Your task to perform on an android device: add a contact in the contacts app Image 0: 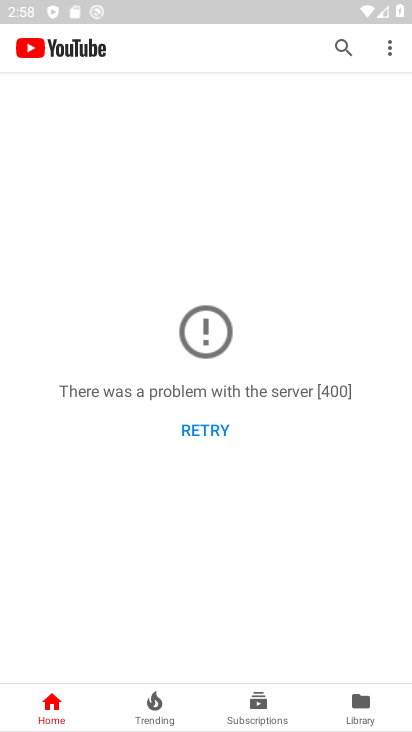
Step 0: press home button
Your task to perform on an android device: add a contact in the contacts app Image 1: 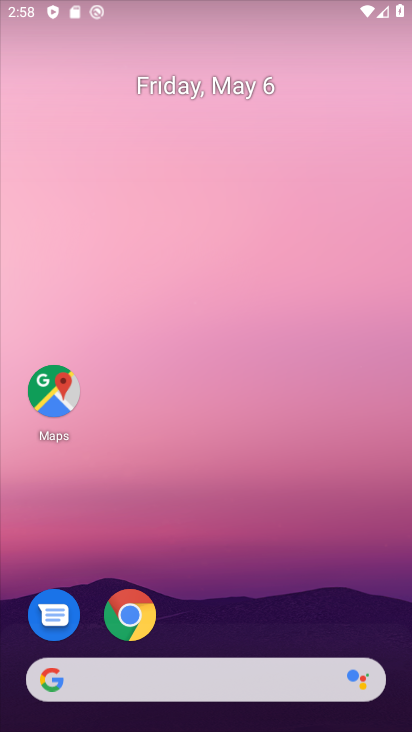
Step 1: drag from (305, 602) to (283, 6)
Your task to perform on an android device: add a contact in the contacts app Image 2: 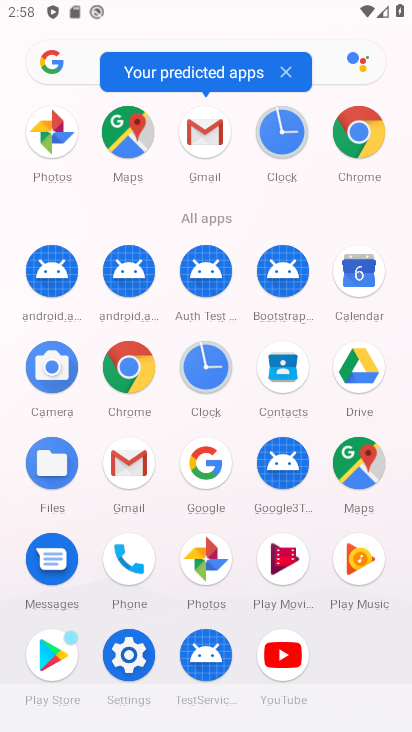
Step 2: click (287, 375)
Your task to perform on an android device: add a contact in the contacts app Image 3: 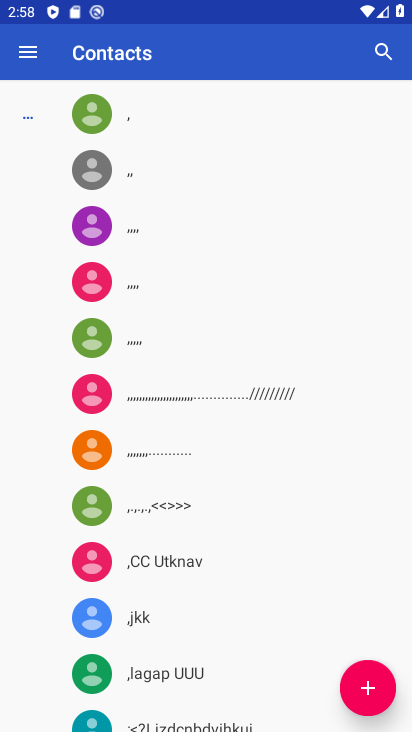
Step 3: click (367, 689)
Your task to perform on an android device: add a contact in the contacts app Image 4: 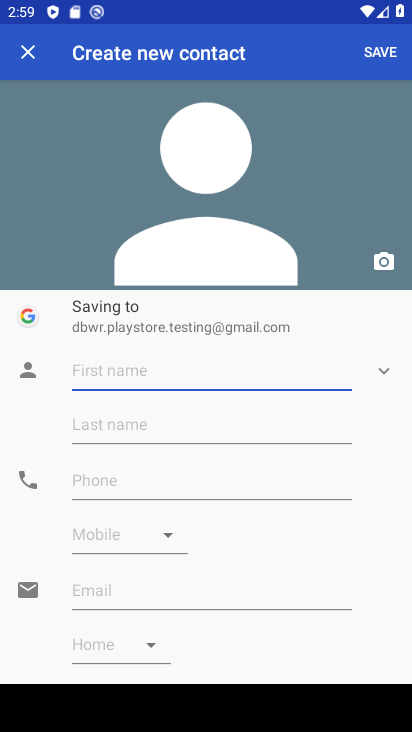
Step 4: click (137, 374)
Your task to perform on an android device: add a contact in the contacts app Image 5: 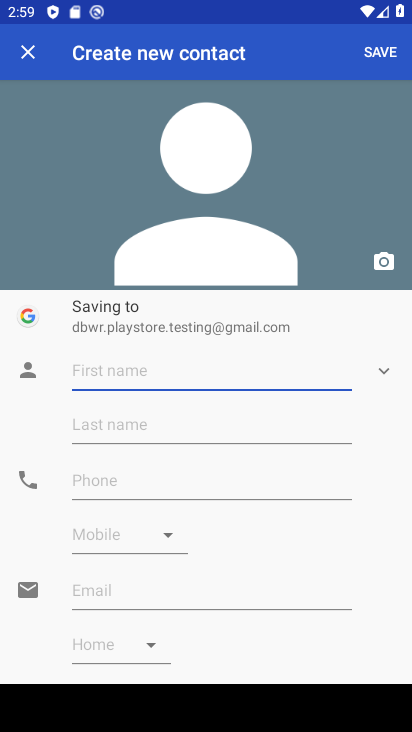
Step 5: type "ankit"
Your task to perform on an android device: add a contact in the contacts app Image 6: 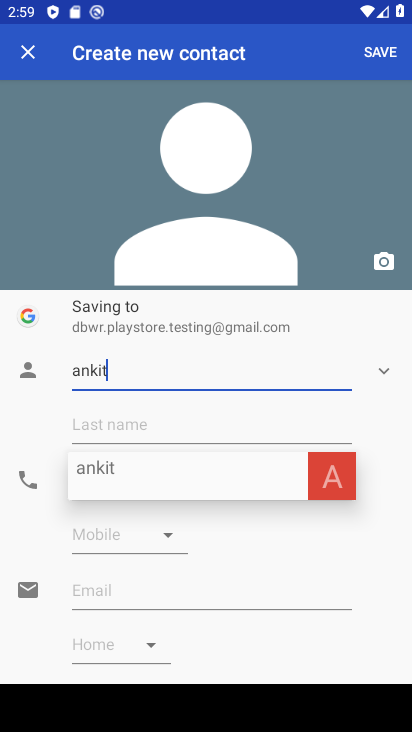
Step 6: click (388, 481)
Your task to perform on an android device: add a contact in the contacts app Image 7: 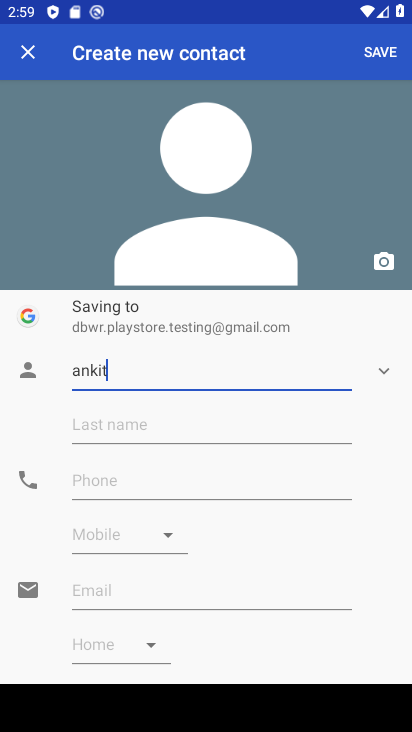
Step 7: click (101, 479)
Your task to perform on an android device: add a contact in the contacts app Image 8: 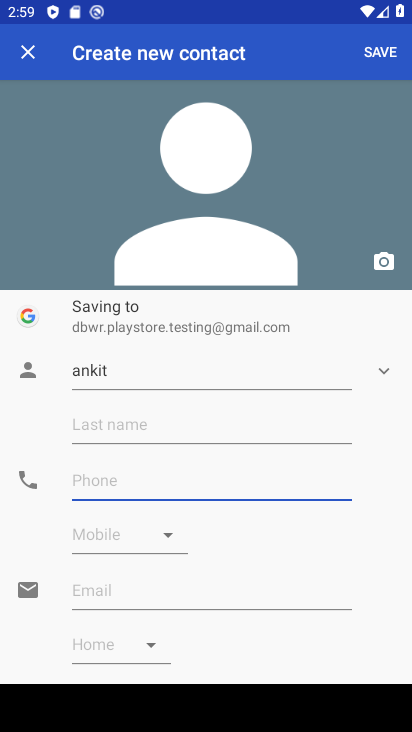
Step 8: type "987765544"
Your task to perform on an android device: add a contact in the contacts app Image 9: 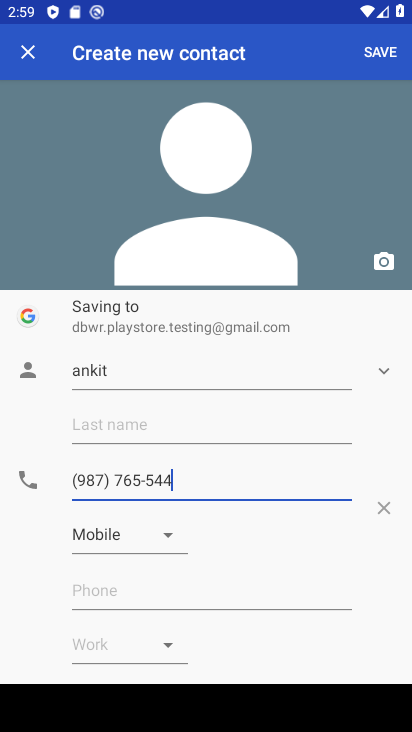
Step 9: click (381, 58)
Your task to perform on an android device: add a contact in the contacts app Image 10: 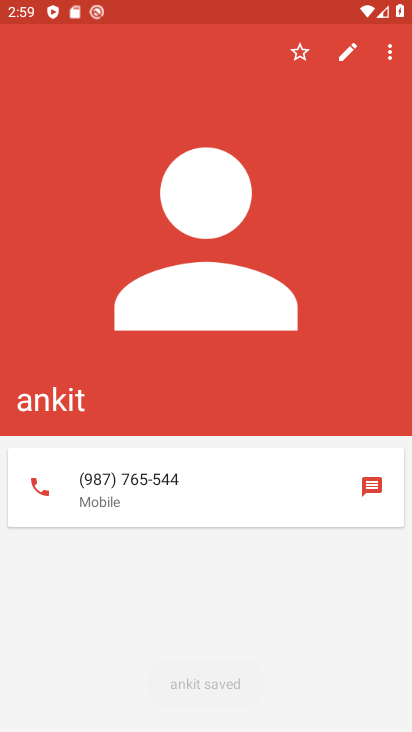
Step 10: task complete